Your task to perform on an android device: Open wifi settings Image 0: 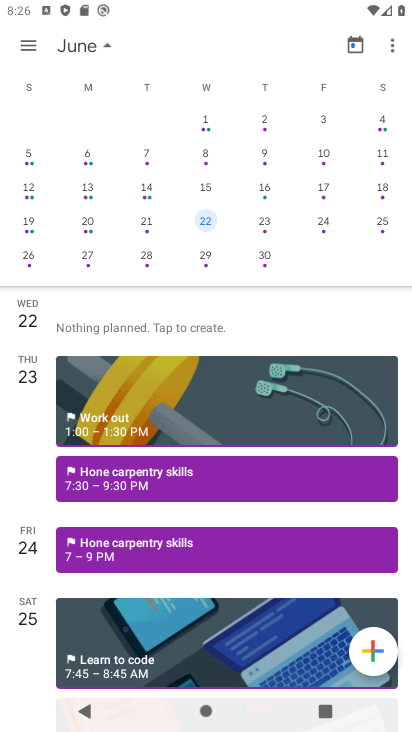
Step 0: press home button
Your task to perform on an android device: Open wifi settings Image 1: 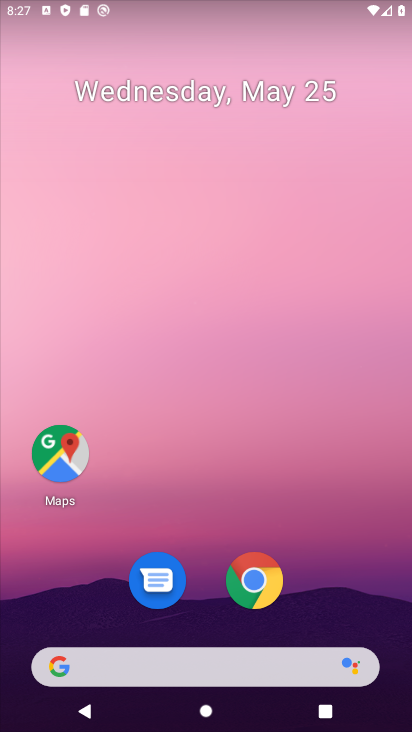
Step 1: drag from (297, 2) to (119, 414)
Your task to perform on an android device: Open wifi settings Image 2: 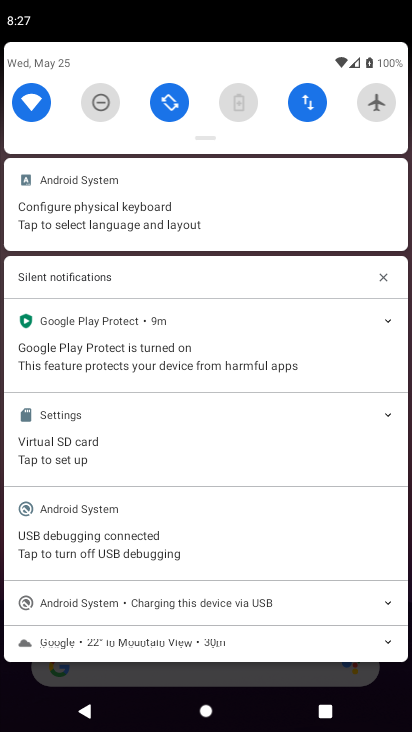
Step 2: click (34, 112)
Your task to perform on an android device: Open wifi settings Image 3: 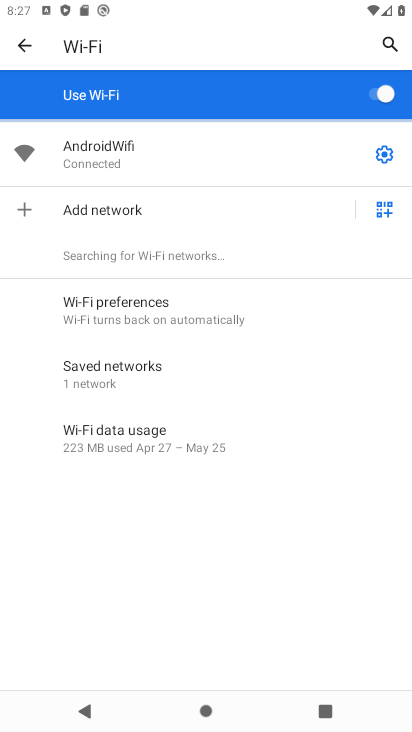
Step 3: click (386, 157)
Your task to perform on an android device: Open wifi settings Image 4: 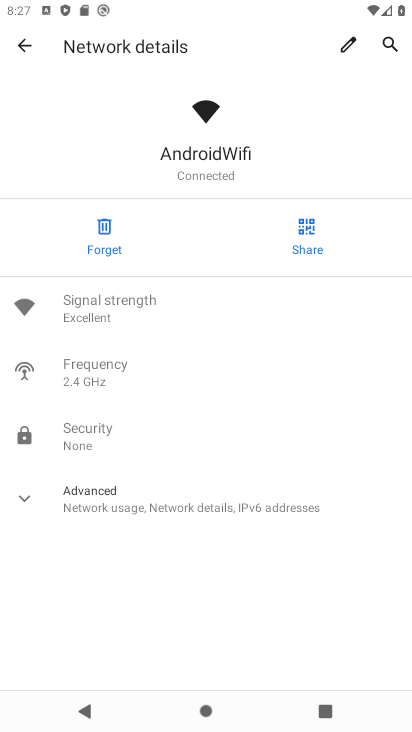
Step 4: task complete